Your task to perform on an android device: Go to sound settings Image 0: 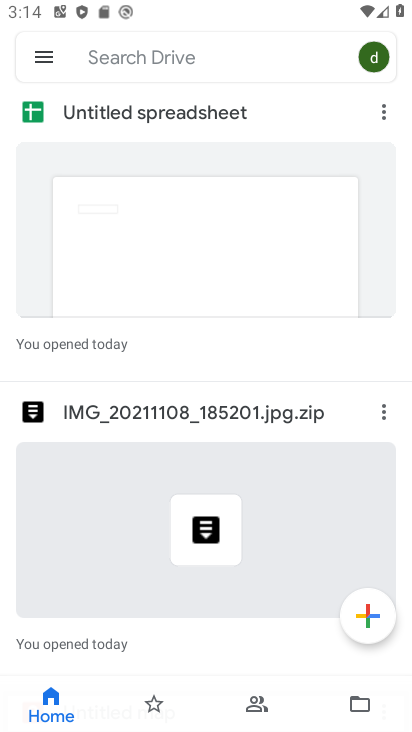
Step 0: press back button
Your task to perform on an android device: Go to sound settings Image 1: 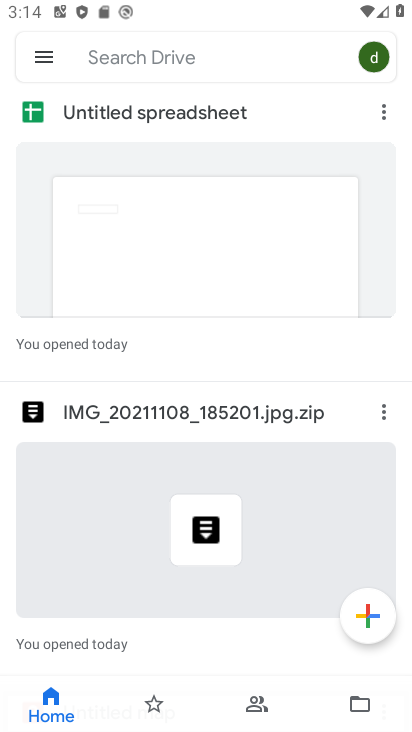
Step 1: press back button
Your task to perform on an android device: Go to sound settings Image 2: 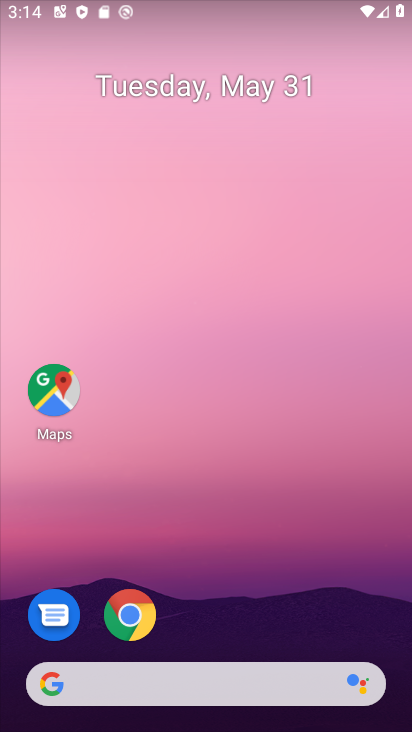
Step 2: drag from (251, 617) to (134, 76)
Your task to perform on an android device: Go to sound settings Image 3: 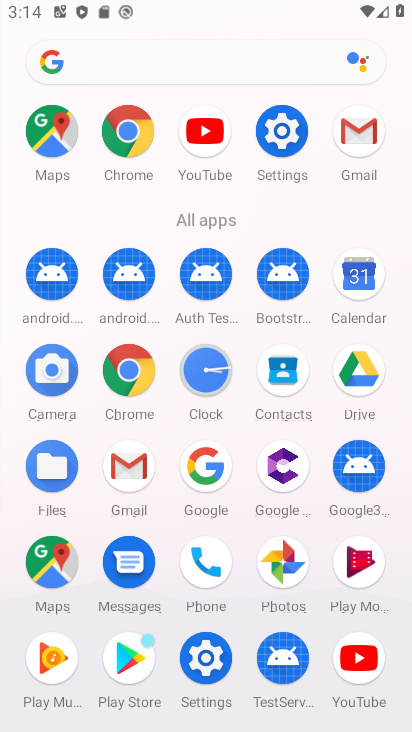
Step 3: click (278, 137)
Your task to perform on an android device: Go to sound settings Image 4: 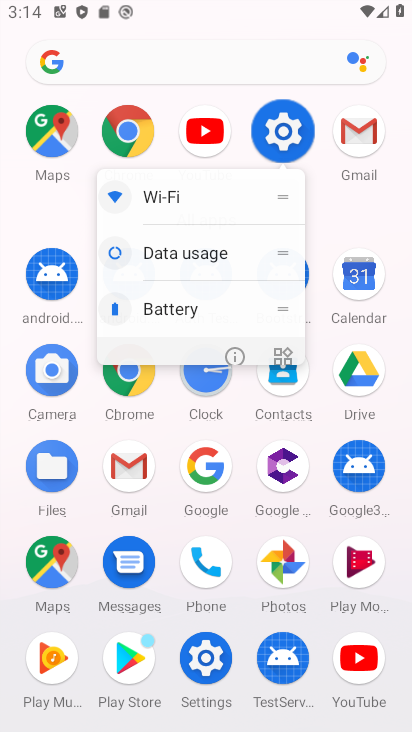
Step 4: click (272, 135)
Your task to perform on an android device: Go to sound settings Image 5: 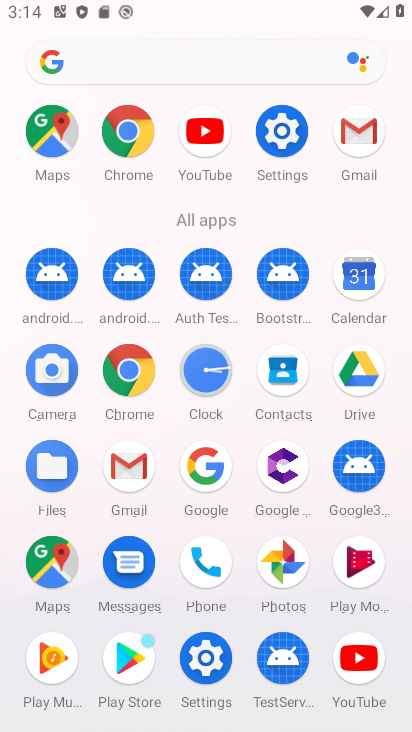
Step 5: click (275, 136)
Your task to perform on an android device: Go to sound settings Image 6: 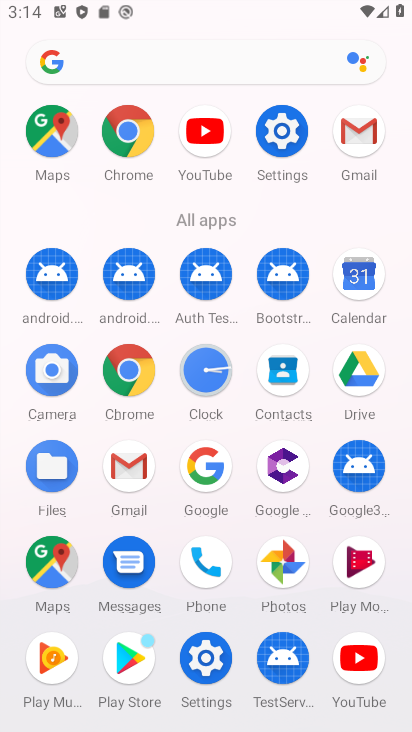
Step 6: click (276, 136)
Your task to perform on an android device: Go to sound settings Image 7: 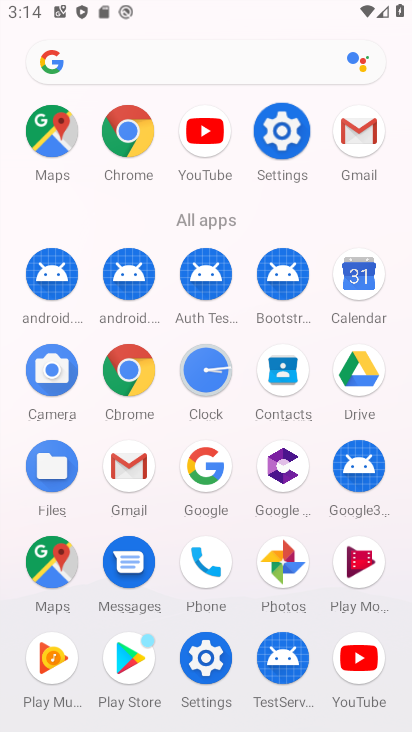
Step 7: click (277, 137)
Your task to perform on an android device: Go to sound settings Image 8: 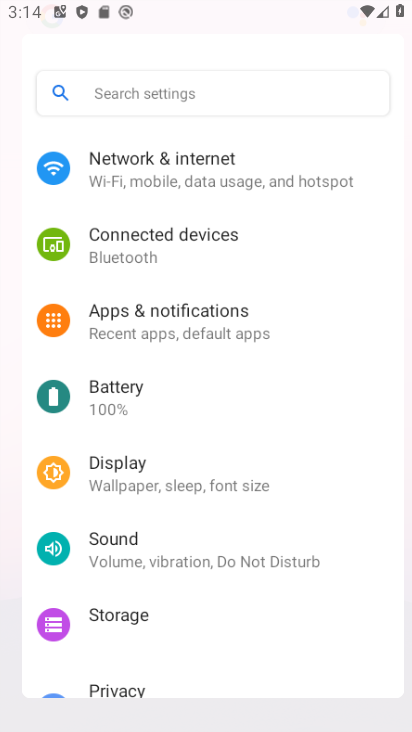
Step 8: click (264, 141)
Your task to perform on an android device: Go to sound settings Image 9: 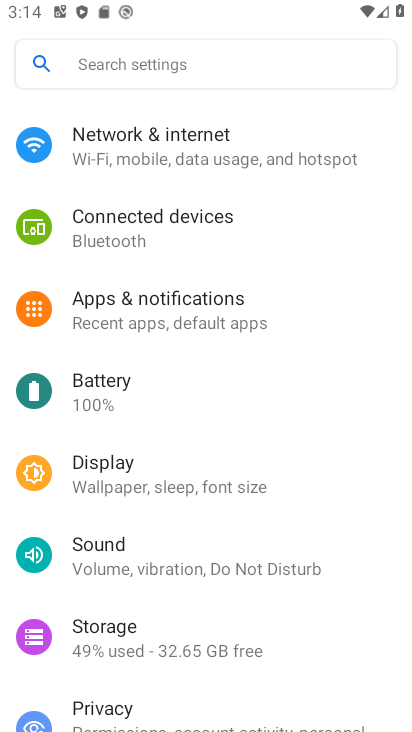
Step 9: click (264, 140)
Your task to perform on an android device: Go to sound settings Image 10: 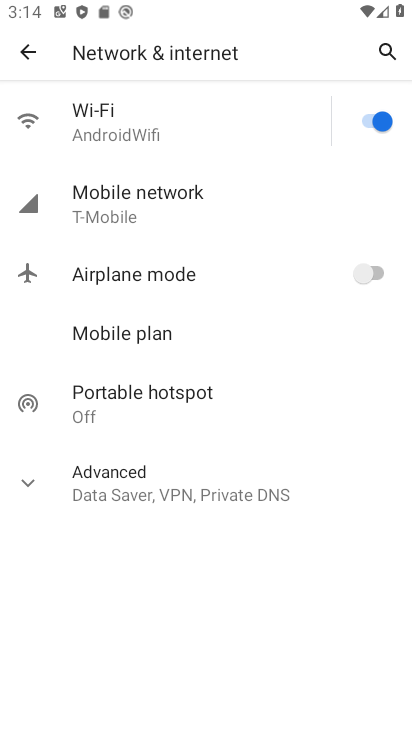
Step 10: click (26, 49)
Your task to perform on an android device: Go to sound settings Image 11: 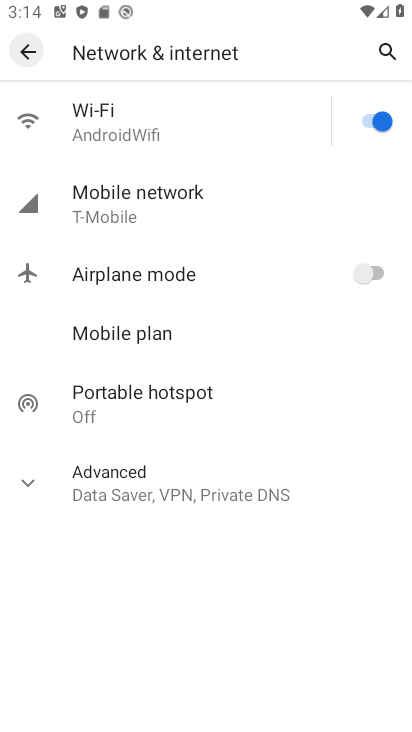
Step 11: click (26, 49)
Your task to perform on an android device: Go to sound settings Image 12: 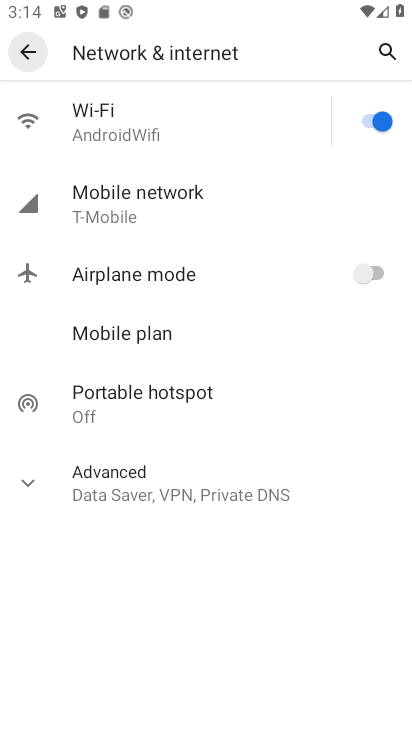
Step 12: click (18, 50)
Your task to perform on an android device: Go to sound settings Image 13: 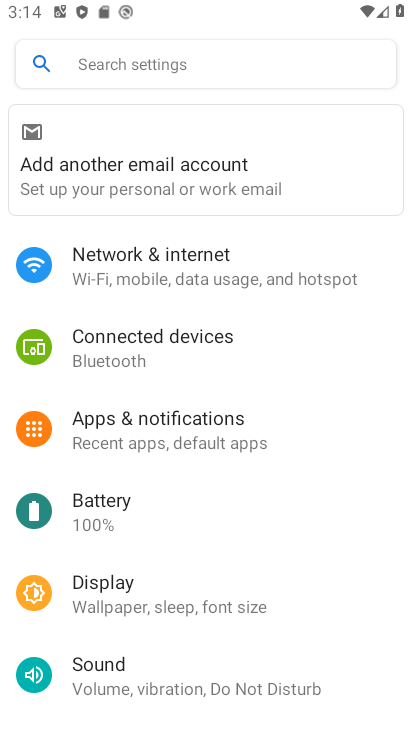
Step 13: click (111, 674)
Your task to perform on an android device: Go to sound settings Image 14: 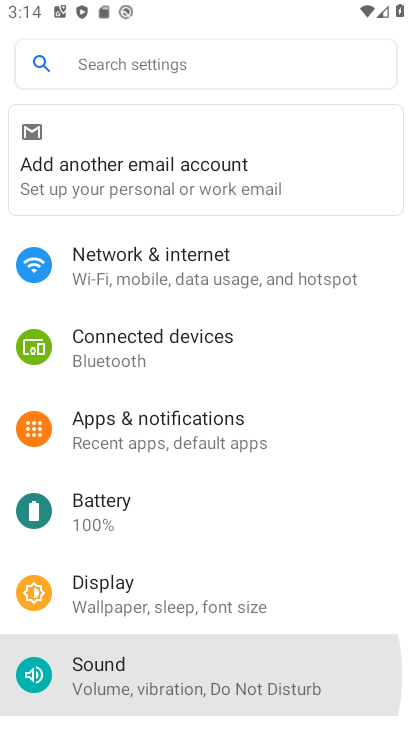
Step 14: click (110, 674)
Your task to perform on an android device: Go to sound settings Image 15: 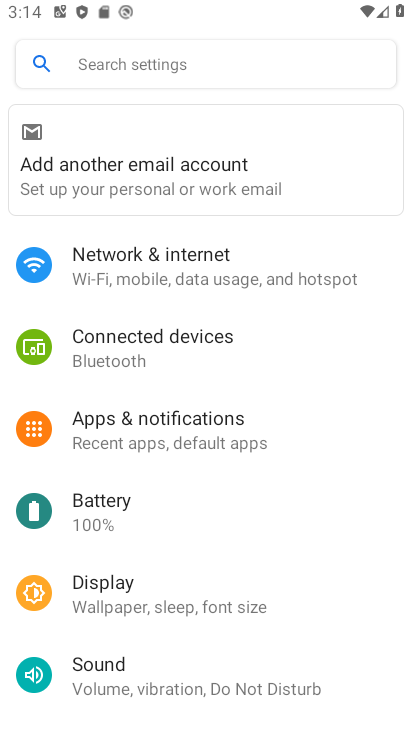
Step 15: click (110, 674)
Your task to perform on an android device: Go to sound settings Image 16: 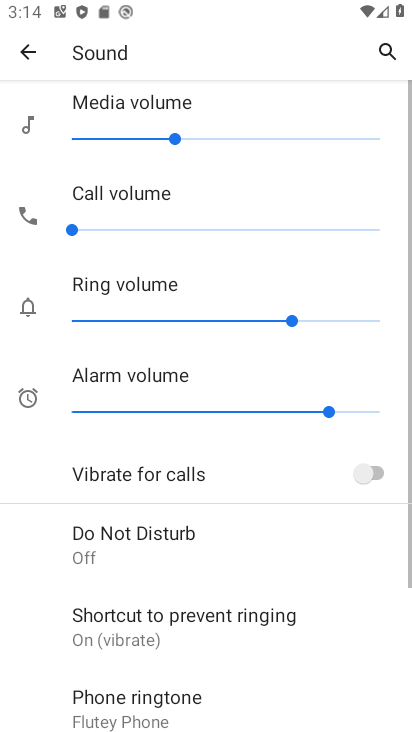
Step 16: click (108, 668)
Your task to perform on an android device: Go to sound settings Image 17: 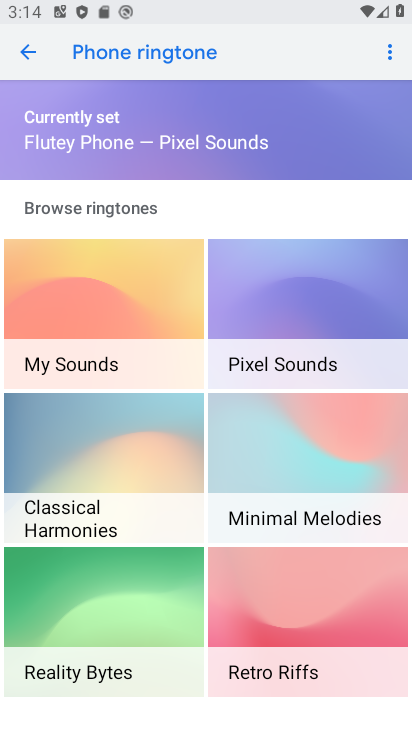
Step 17: click (25, 54)
Your task to perform on an android device: Go to sound settings Image 18: 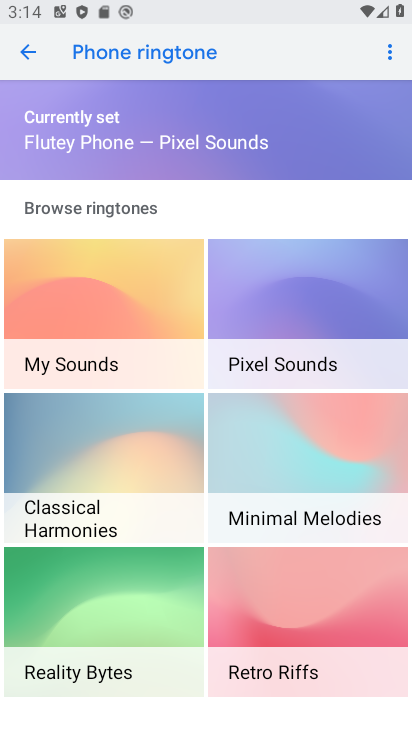
Step 18: click (24, 54)
Your task to perform on an android device: Go to sound settings Image 19: 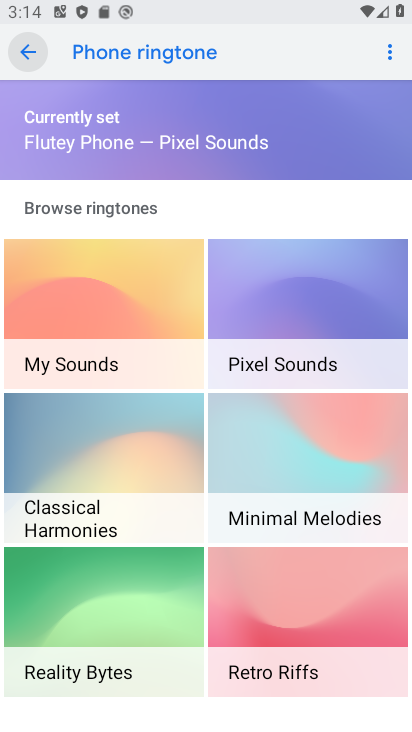
Step 19: click (24, 52)
Your task to perform on an android device: Go to sound settings Image 20: 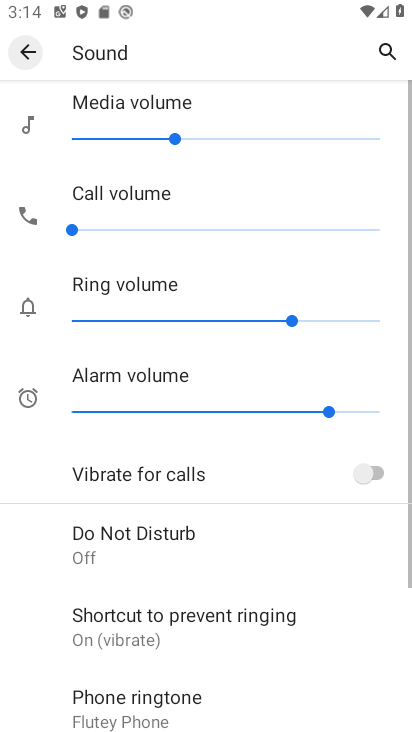
Step 20: click (31, 45)
Your task to perform on an android device: Go to sound settings Image 21: 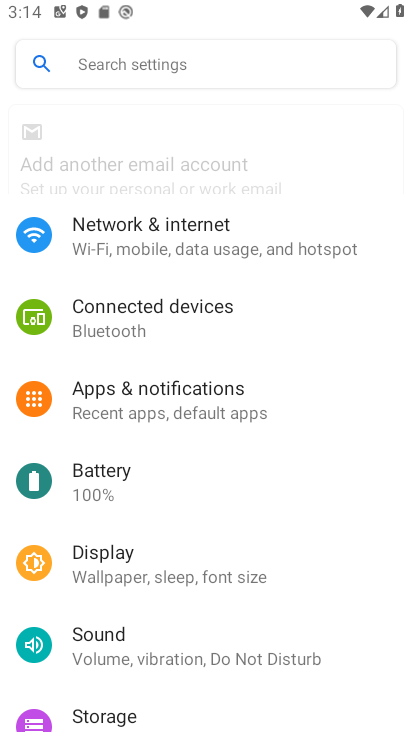
Step 21: task complete